Your task to perform on an android device: toggle notifications settings in the gmail app Image 0: 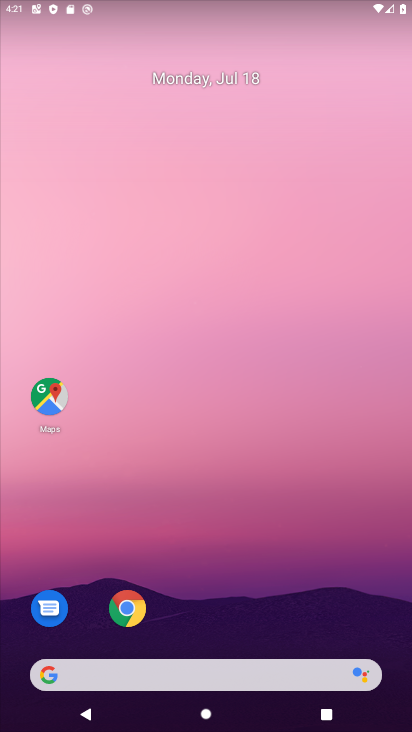
Step 0: press home button
Your task to perform on an android device: toggle notifications settings in the gmail app Image 1: 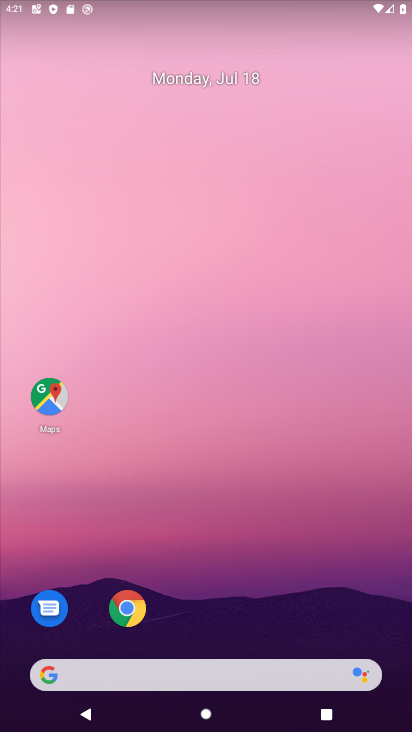
Step 1: drag from (252, 606) to (162, 2)
Your task to perform on an android device: toggle notifications settings in the gmail app Image 2: 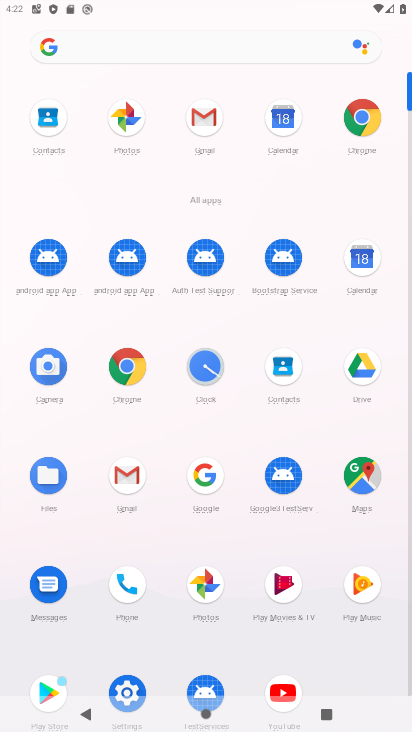
Step 2: click (122, 470)
Your task to perform on an android device: toggle notifications settings in the gmail app Image 3: 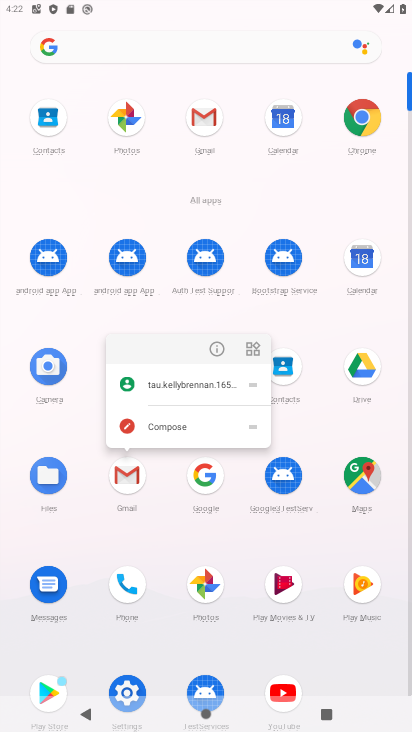
Step 3: click (215, 341)
Your task to perform on an android device: toggle notifications settings in the gmail app Image 4: 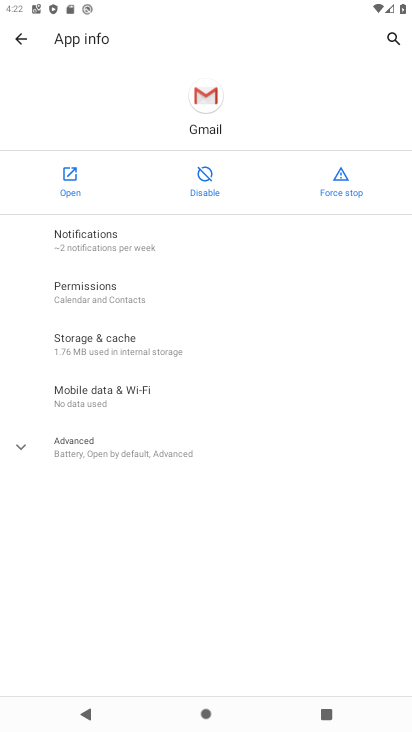
Step 4: click (170, 240)
Your task to perform on an android device: toggle notifications settings in the gmail app Image 5: 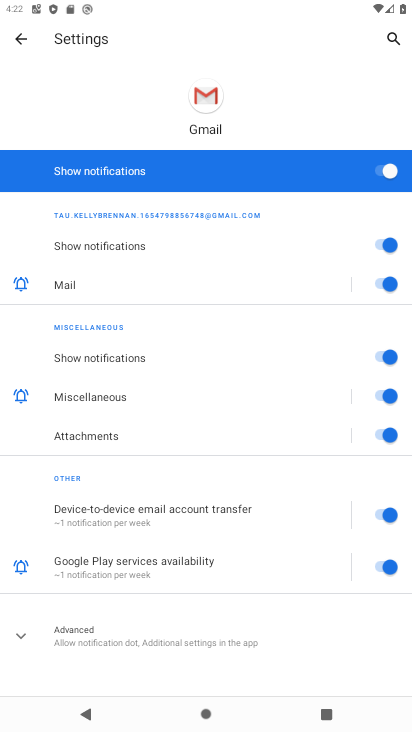
Step 5: click (383, 169)
Your task to perform on an android device: toggle notifications settings in the gmail app Image 6: 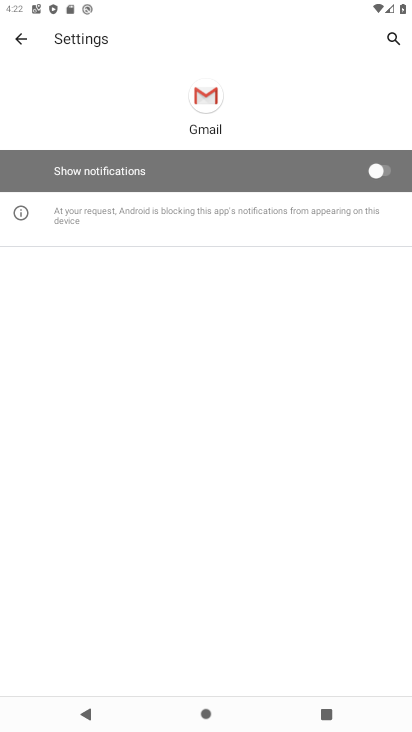
Step 6: task complete